Your task to perform on an android device: Go to notification settings Image 0: 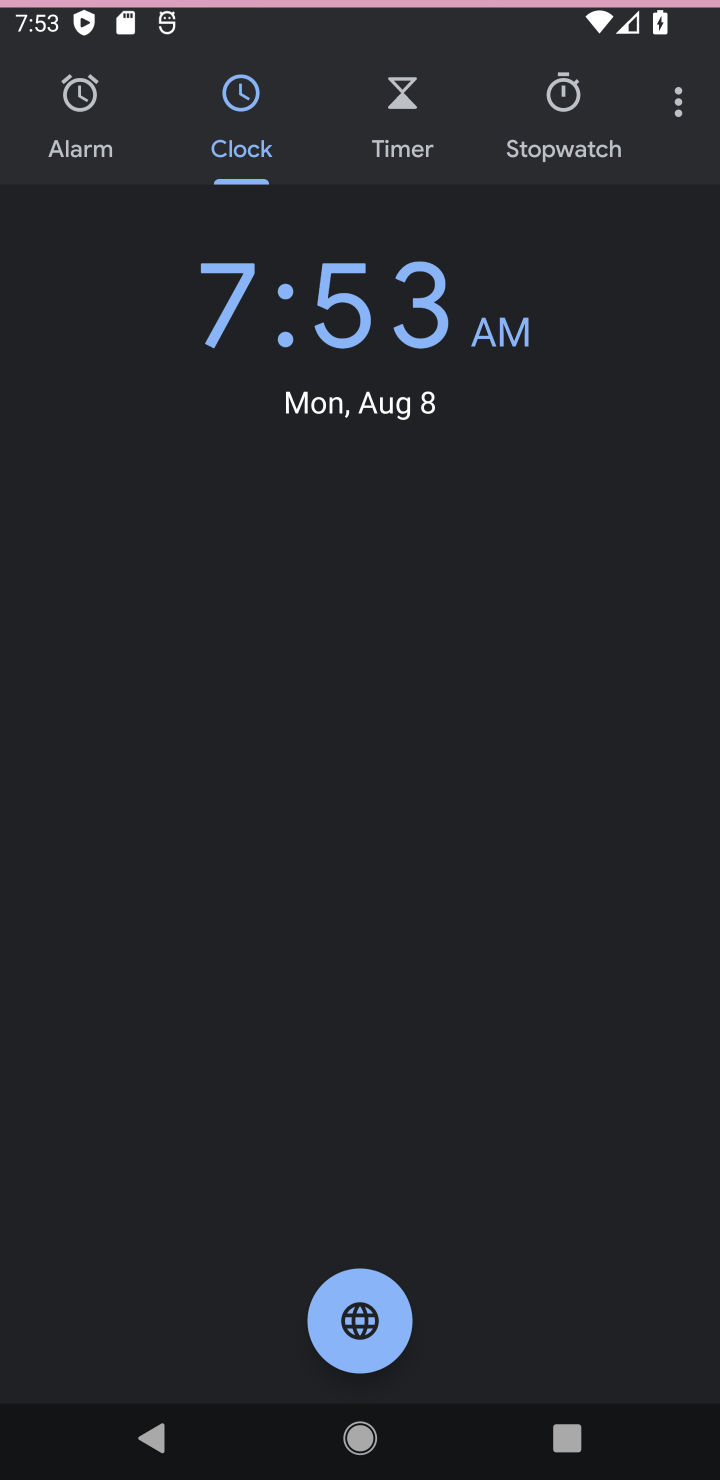
Step 0: press home button
Your task to perform on an android device: Go to notification settings Image 1: 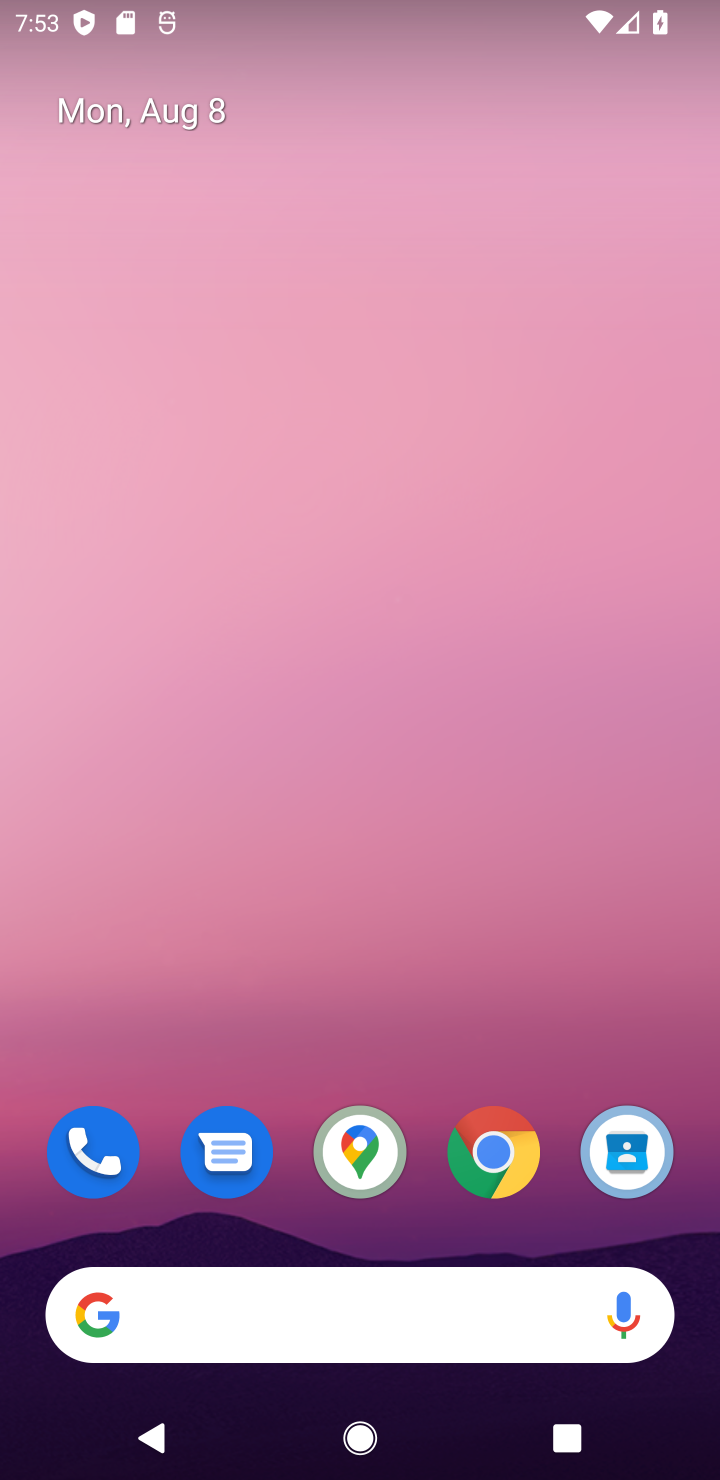
Step 1: drag from (338, 870) to (274, 205)
Your task to perform on an android device: Go to notification settings Image 2: 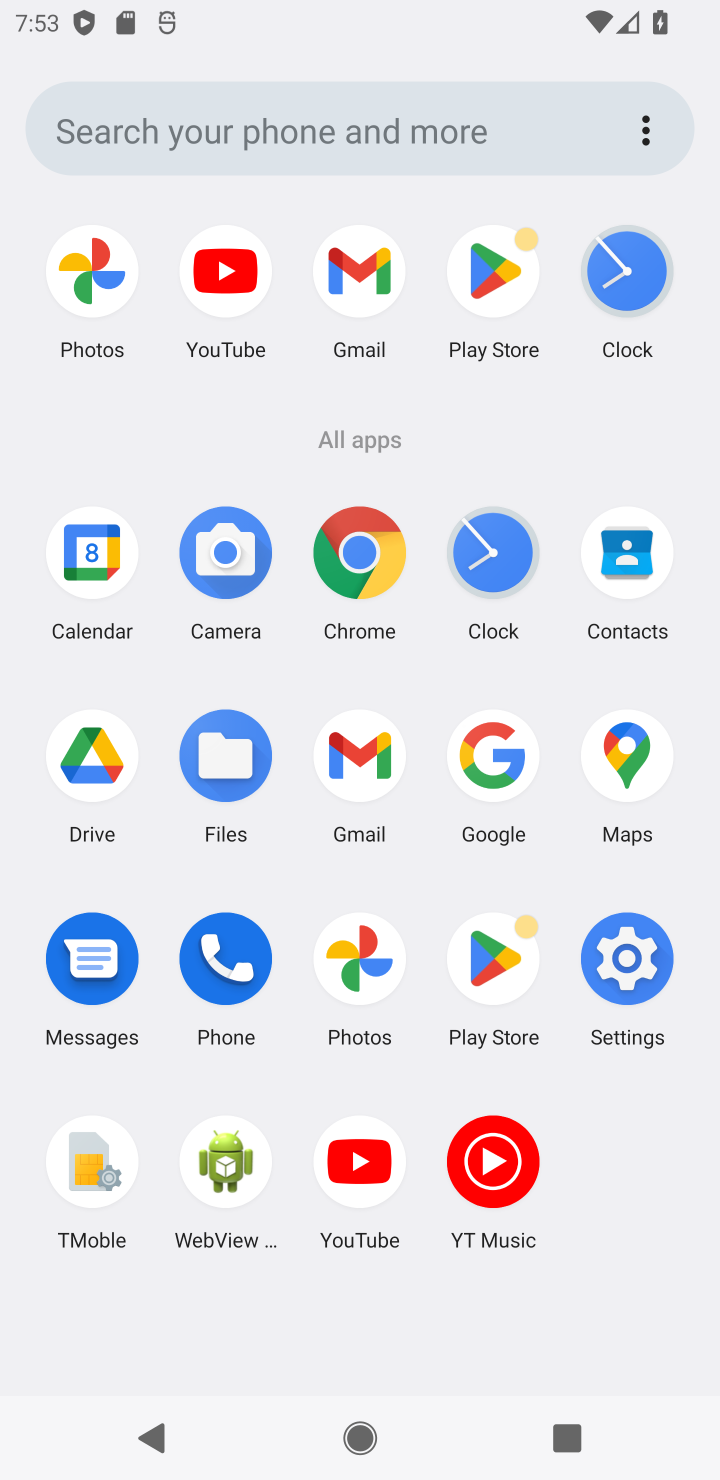
Step 2: click (616, 962)
Your task to perform on an android device: Go to notification settings Image 3: 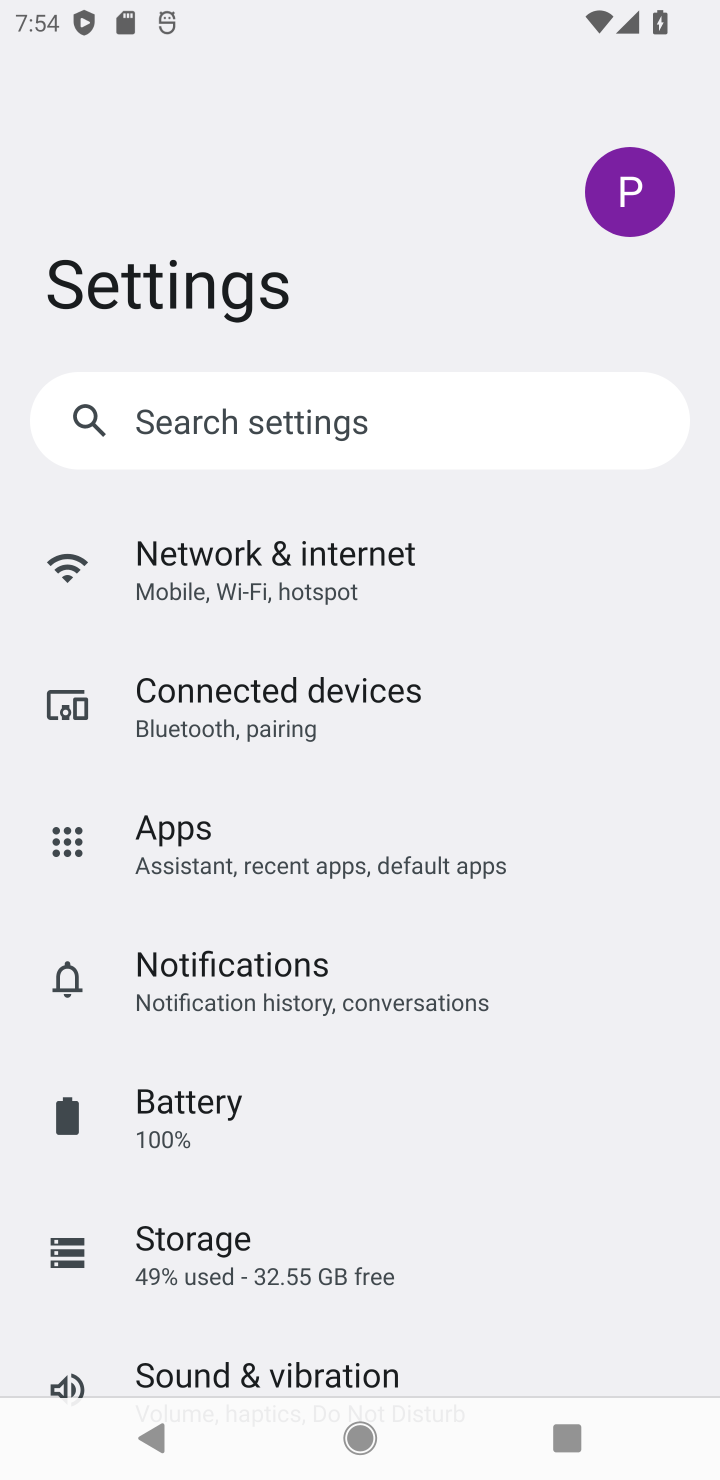
Step 3: click (269, 960)
Your task to perform on an android device: Go to notification settings Image 4: 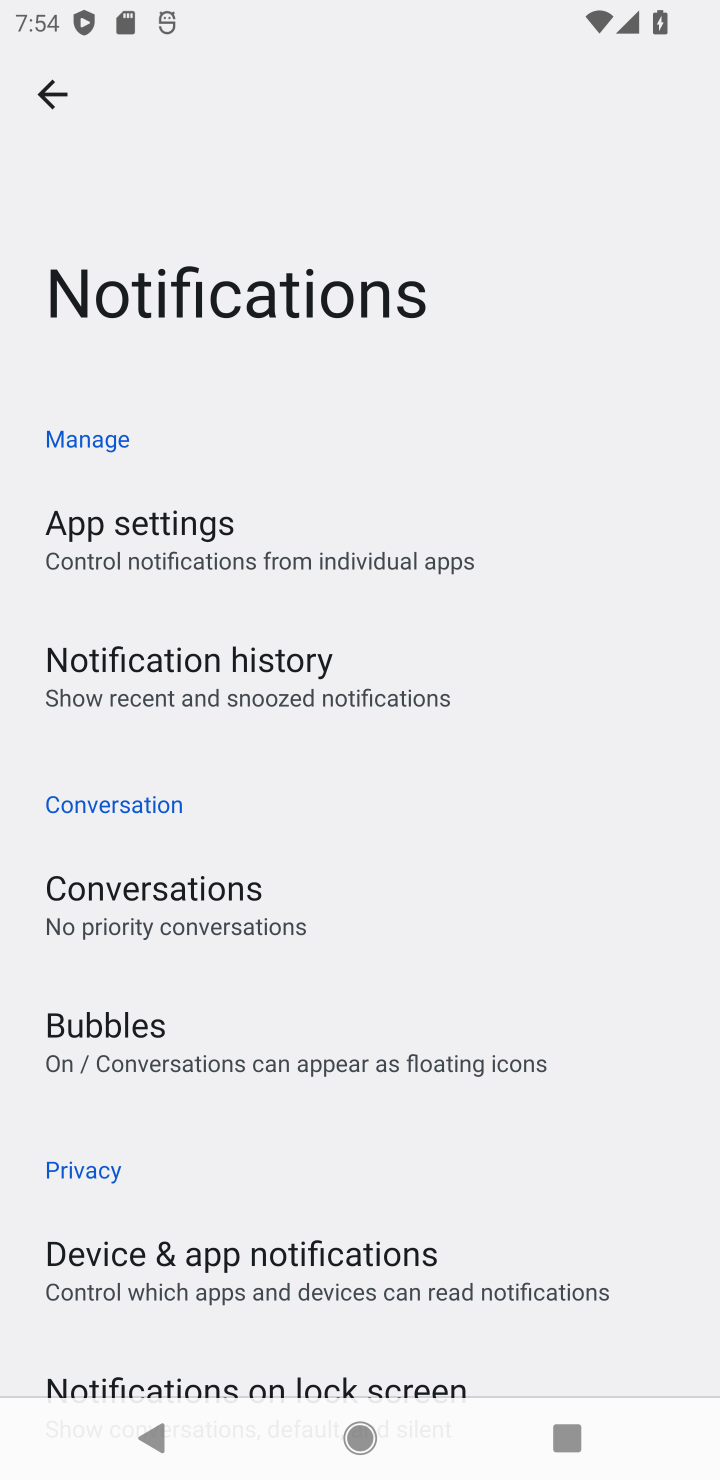
Step 4: task complete